Your task to perform on an android device: Open Google Image 0: 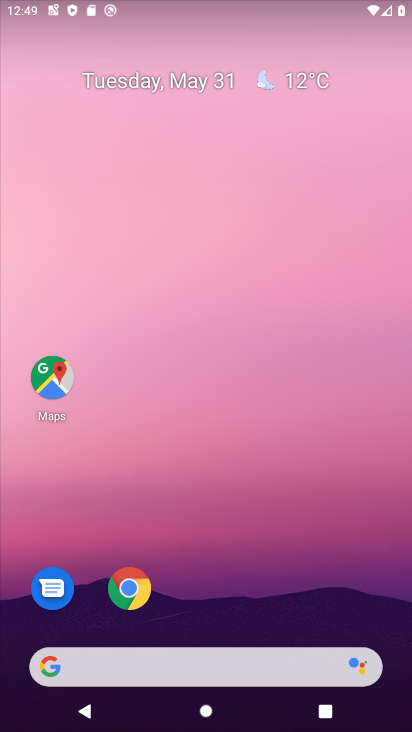
Step 0: click (155, 665)
Your task to perform on an android device: Open Google Image 1: 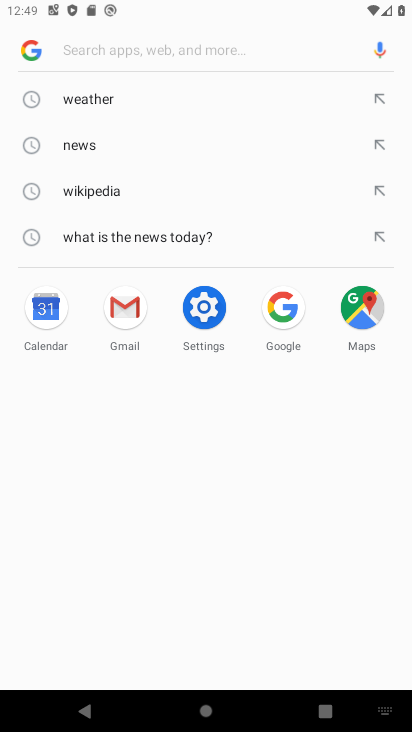
Step 1: task complete